Your task to perform on an android device: change notifications settings Image 0: 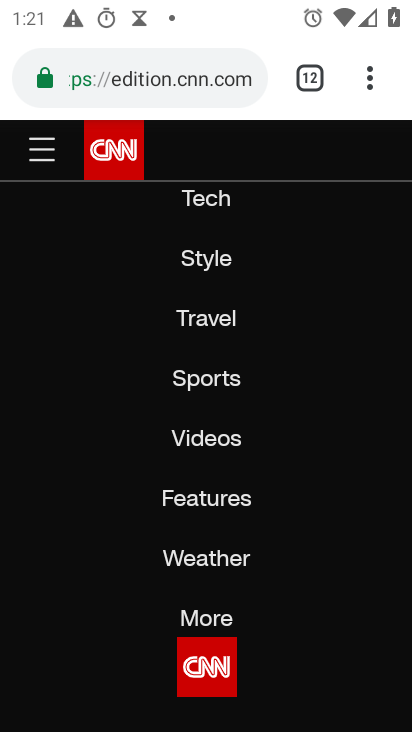
Step 0: press home button
Your task to perform on an android device: change notifications settings Image 1: 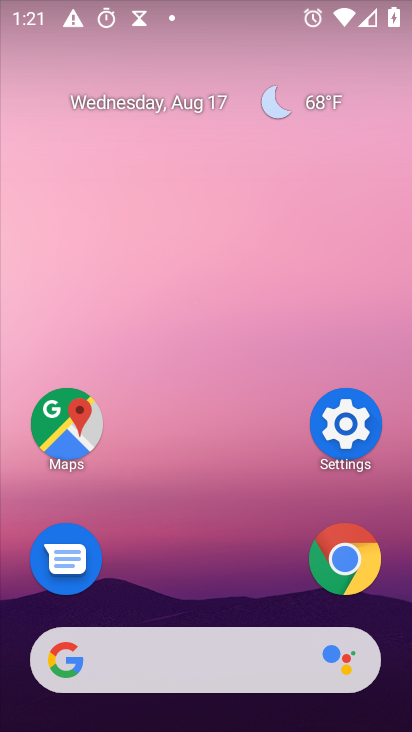
Step 1: drag from (188, 660) to (235, 158)
Your task to perform on an android device: change notifications settings Image 2: 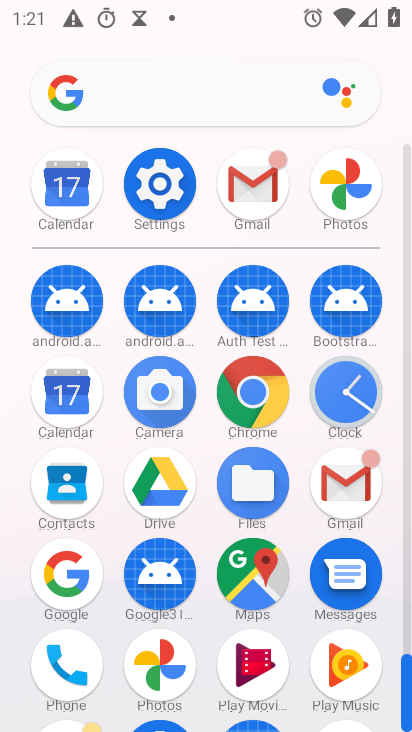
Step 2: drag from (207, 659) to (243, 170)
Your task to perform on an android device: change notifications settings Image 3: 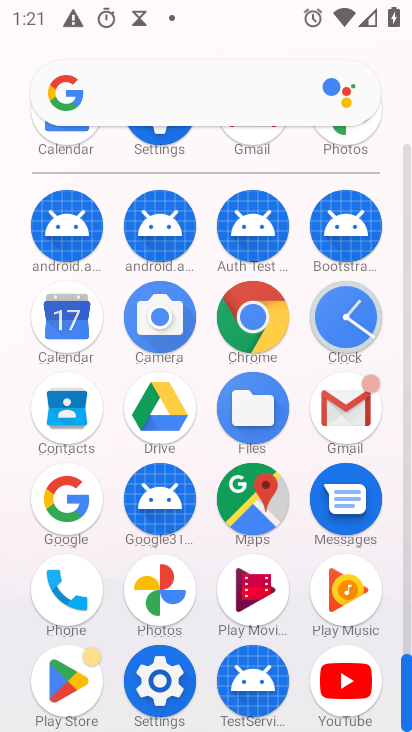
Step 3: click (159, 679)
Your task to perform on an android device: change notifications settings Image 4: 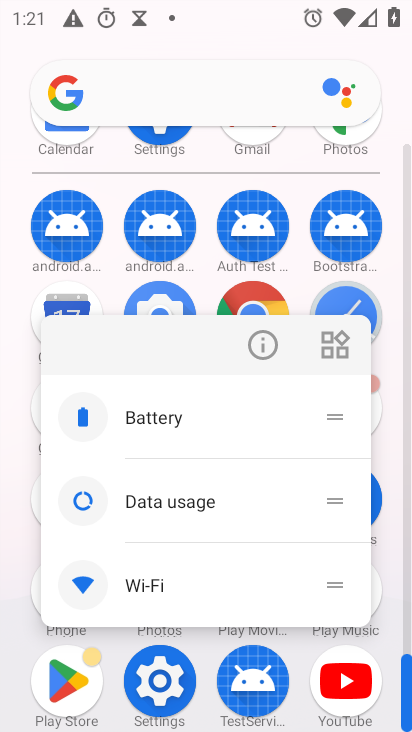
Step 4: click (159, 678)
Your task to perform on an android device: change notifications settings Image 5: 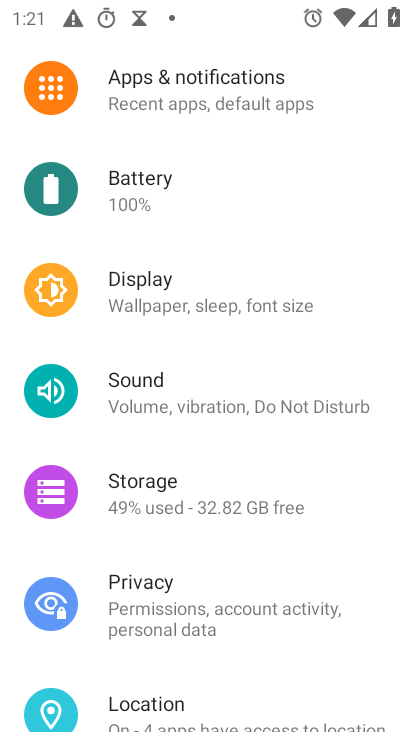
Step 5: click (227, 108)
Your task to perform on an android device: change notifications settings Image 6: 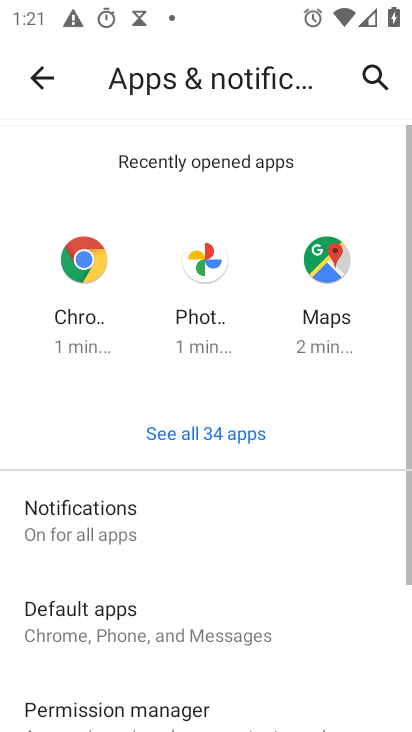
Step 6: click (81, 525)
Your task to perform on an android device: change notifications settings Image 7: 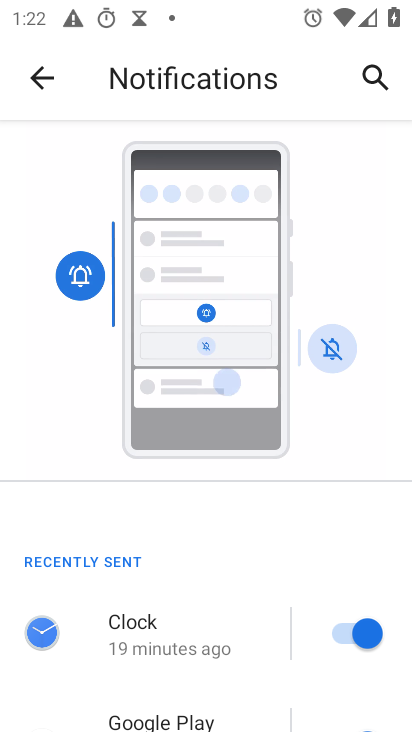
Step 7: task complete